Your task to perform on an android device: Turn on the flashlight Image 0: 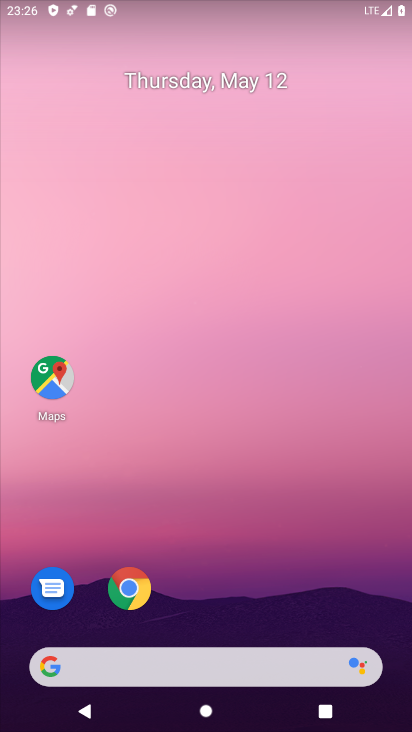
Step 0: drag from (193, 582) to (183, 109)
Your task to perform on an android device: Turn on the flashlight Image 1: 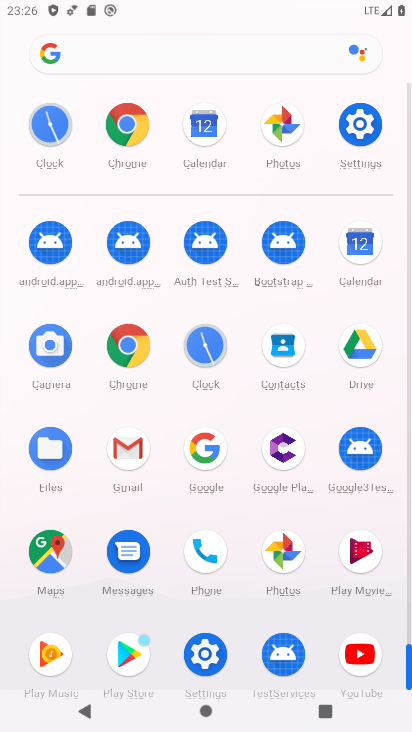
Step 1: click (367, 132)
Your task to perform on an android device: Turn on the flashlight Image 2: 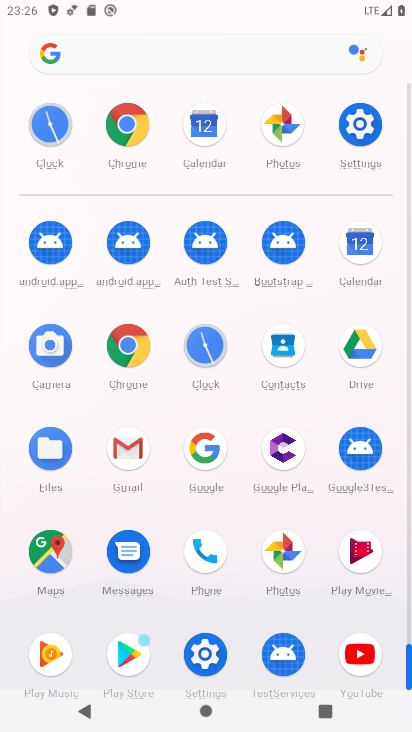
Step 2: click (367, 132)
Your task to perform on an android device: Turn on the flashlight Image 3: 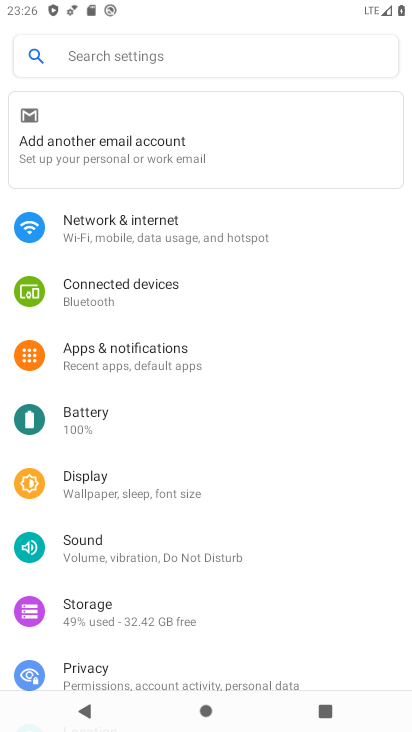
Step 3: click (166, 47)
Your task to perform on an android device: Turn on the flashlight Image 4: 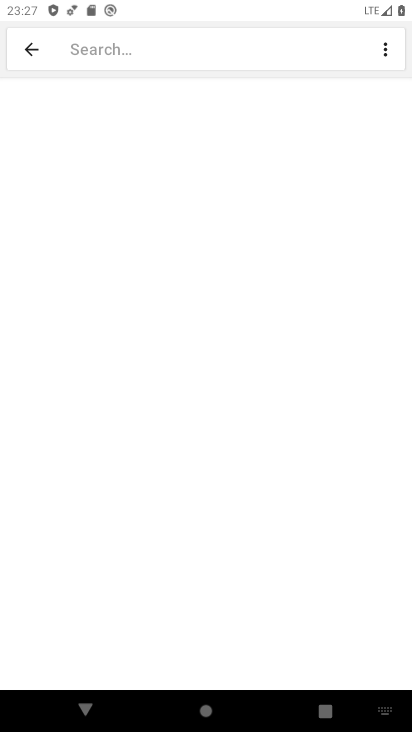
Step 4: type "flashlight"
Your task to perform on an android device: Turn on the flashlight Image 5: 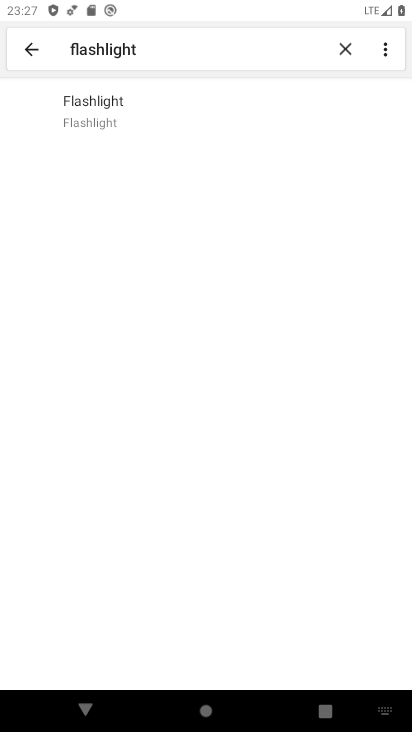
Step 5: click (91, 120)
Your task to perform on an android device: Turn on the flashlight Image 6: 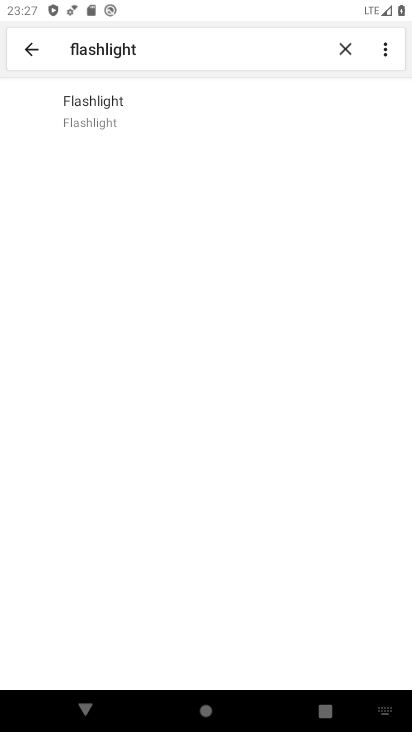
Step 6: task complete